Your task to perform on an android device: Go to sound settings Image 0: 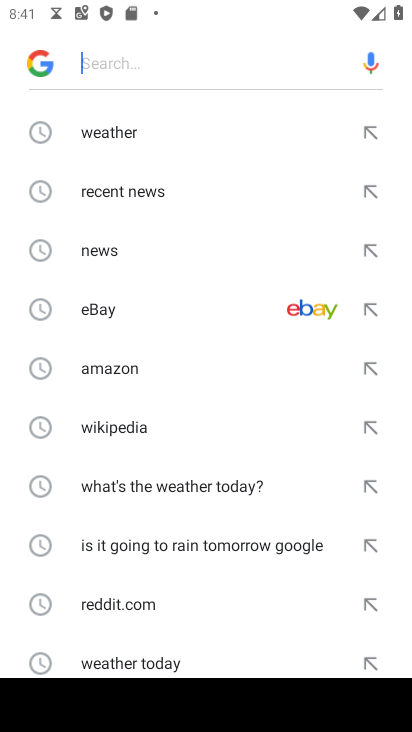
Step 0: press home button
Your task to perform on an android device: Go to sound settings Image 1: 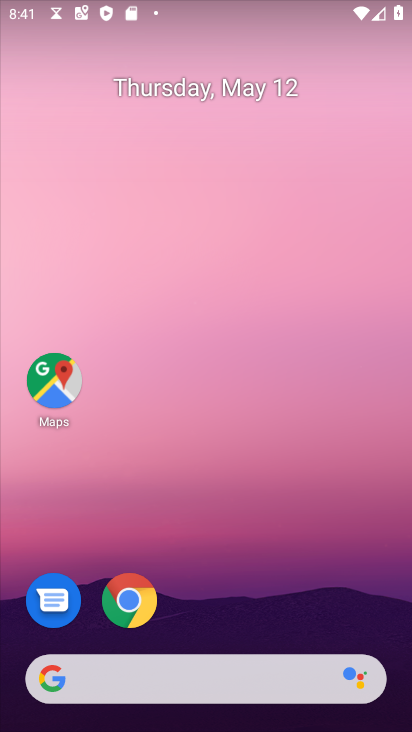
Step 1: drag from (258, 578) to (205, 142)
Your task to perform on an android device: Go to sound settings Image 2: 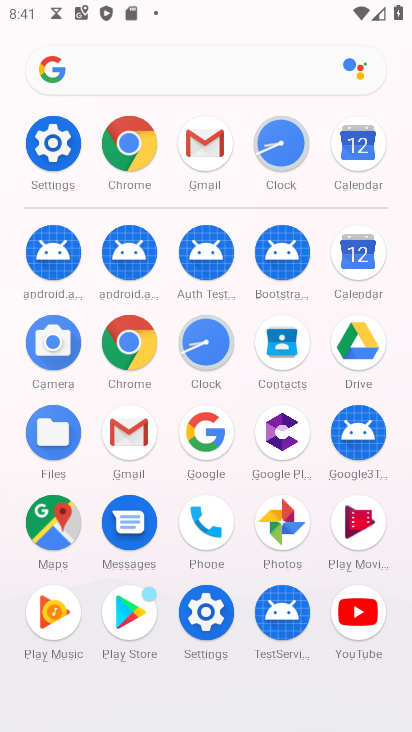
Step 2: click (44, 146)
Your task to perform on an android device: Go to sound settings Image 3: 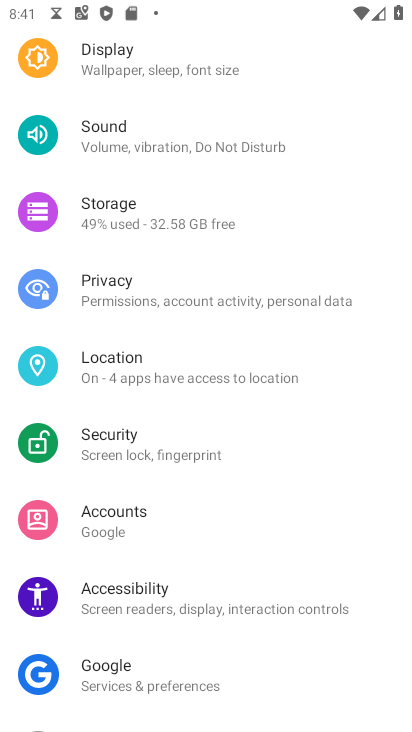
Step 3: click (125, 147)
Your task to perform on an android device: Go to sound settings Image 4: 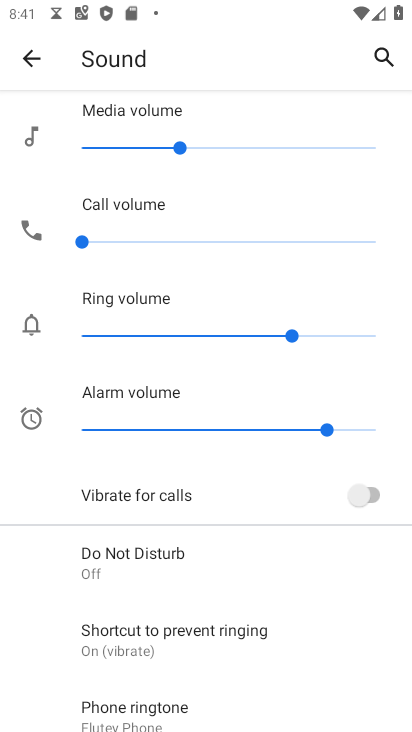
Step 4: task complete